Your task to perform on an android device: Is it going to rain today? Image 0: 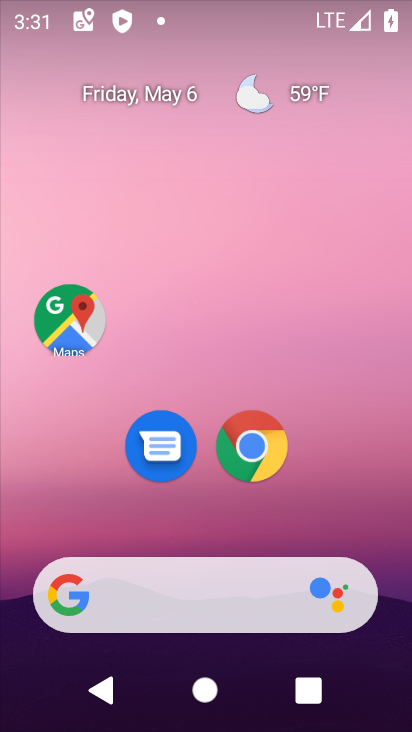
Step 0: click (267, 449)
Your task to perform on an android device: Is it going to rain today? Image 1: 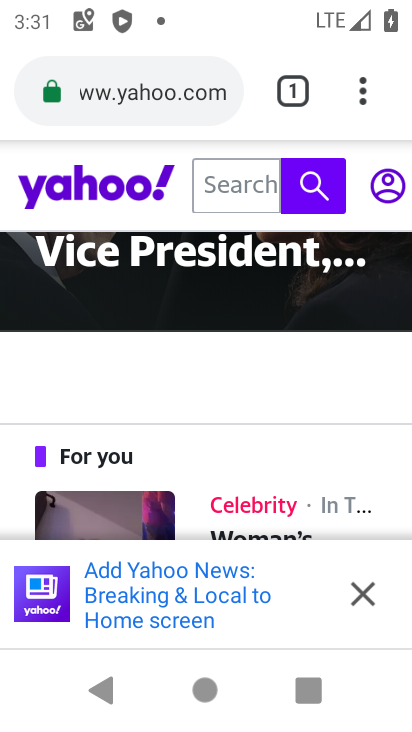
Step 1: click (200, 87)
Your task to perform on an android device: Is it going to rain today? Image 2: 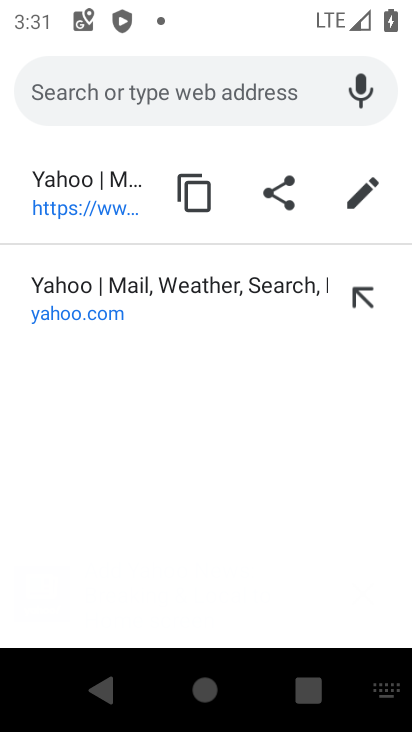
Step 2: type "is it going to rain today?"
Your task to perform on an android device: Is it going to rain today? Image 3: 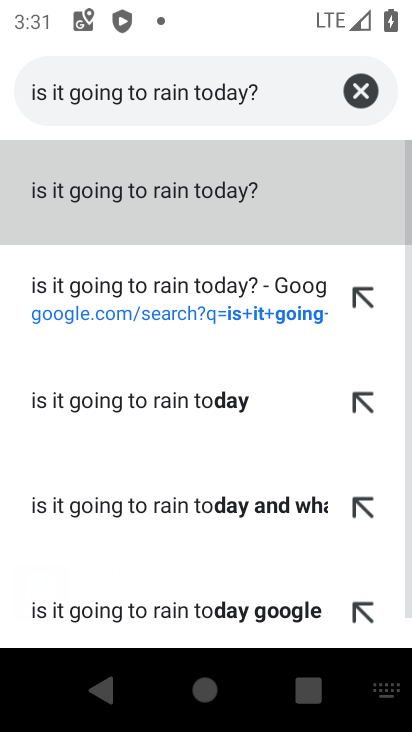
Step 3: click (154, 215)
Your task to perform on an android device: Is it going to rain today? Image 4: 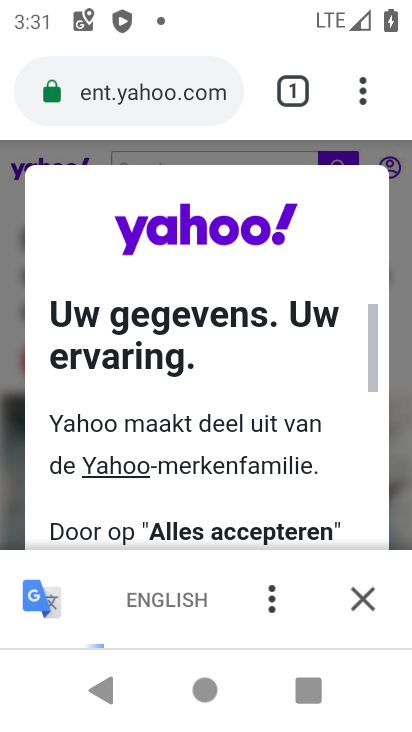
Step 4: click (178, 89)
Your task to perform on an android device: Is it going to rain today? Image 5: 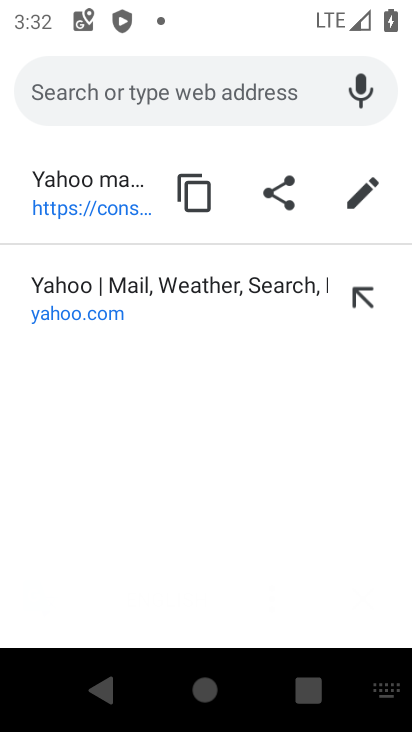
Step 5: type "is it going to rain today?"
Your task to perform on an android device: Is it going to rain today? Image 6: 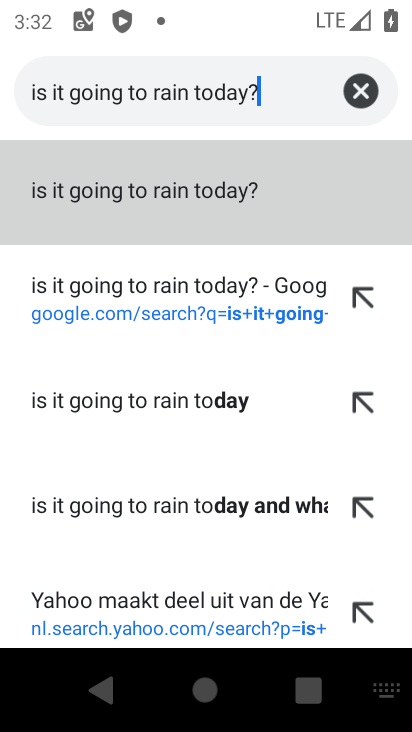
Step 6: click (201, 202)
Your task to perform on an android device: Is it going to rain today? Image 7: 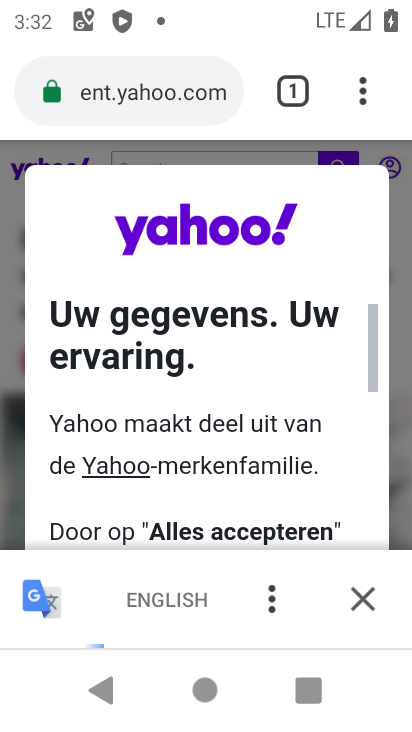
Step 7: click (183, 98)
Your task to perform on an android device: Is it going to rain today? Image 8: 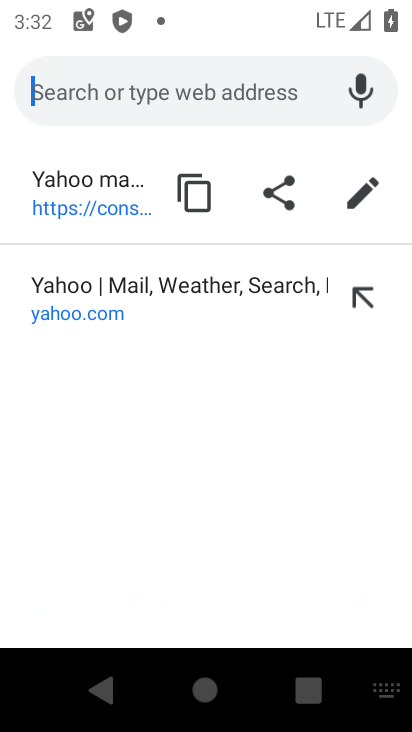
Step 8: type "is it going to rain today"
Your task to perform on an android device: Is it going to rain today? Image 9: 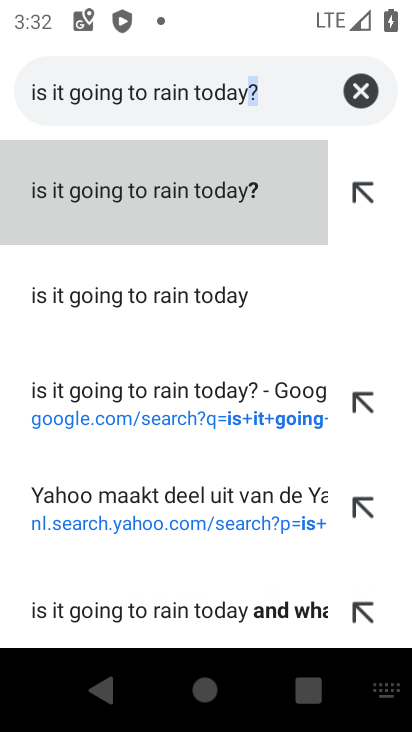
Step 9: click (170, 300)
Your task to perform on an android device: Is it going to rain today? Image 10: 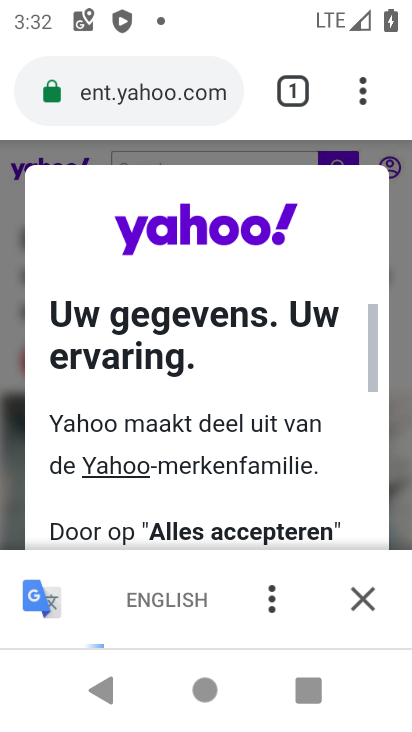
Step 10: task complete